Your task to perform on an android device: Open Google Image 0: 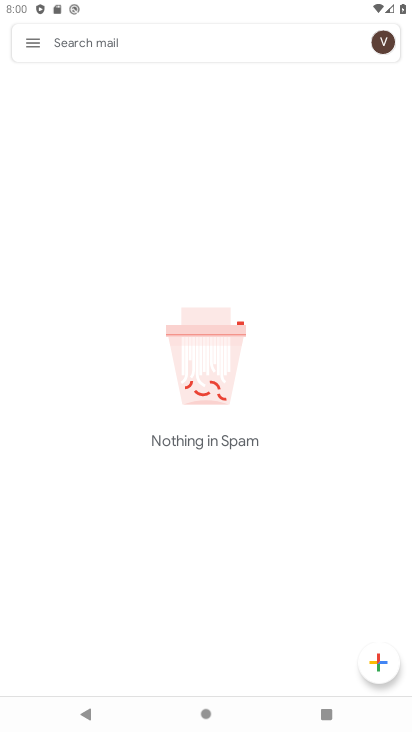
Step 0: press home button
Your task to perform on an android device: Open Google Image 1: 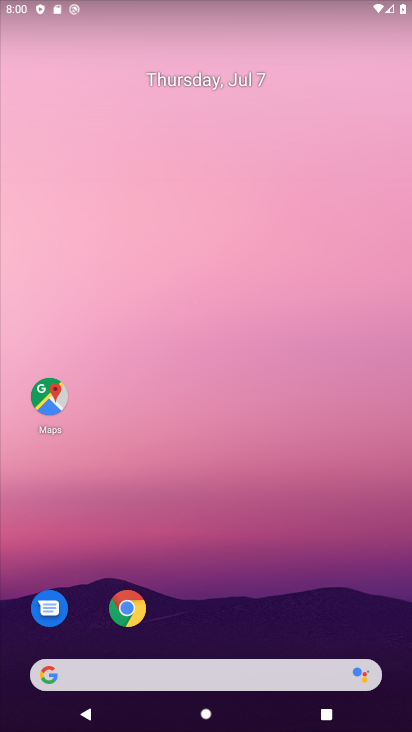
Step 1: drag from (205, 617) to (213, 211)
Your task to perform on an android device: Open Google Image 2: 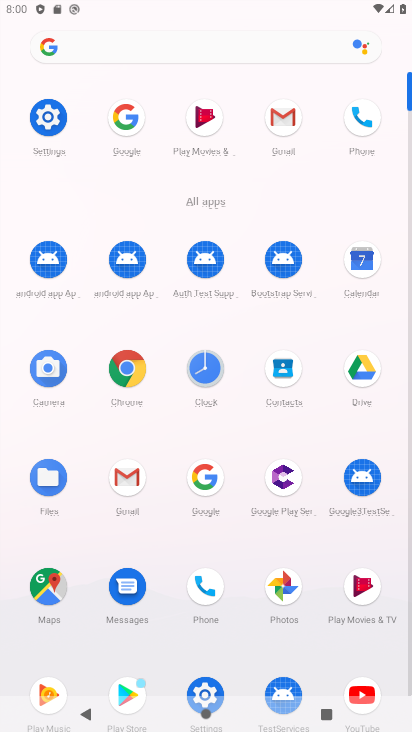
Step 2: click (189, 484)
Your task to perform on an android device: Open Google Image 3: 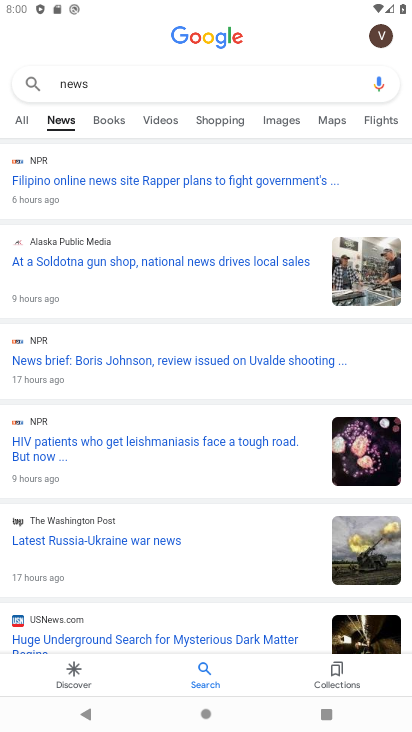
Step 3: task complete